Your task to perform on an android device: turn off notifications settings in the gmail app Image 0: 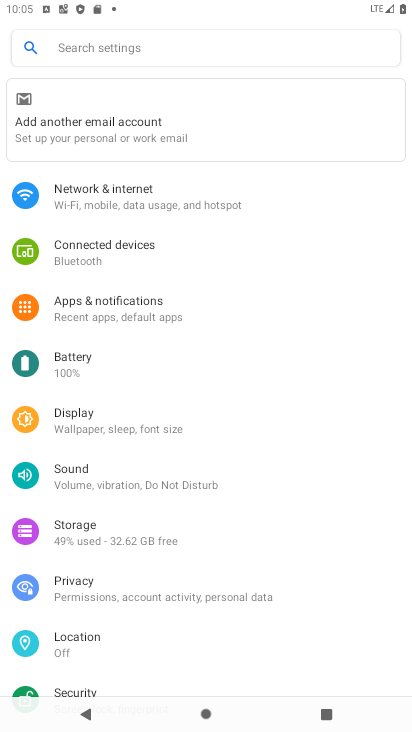
Step 0: press home button
Your task to perform on an android device: turn off notifications settings in the gmail app Image 1: 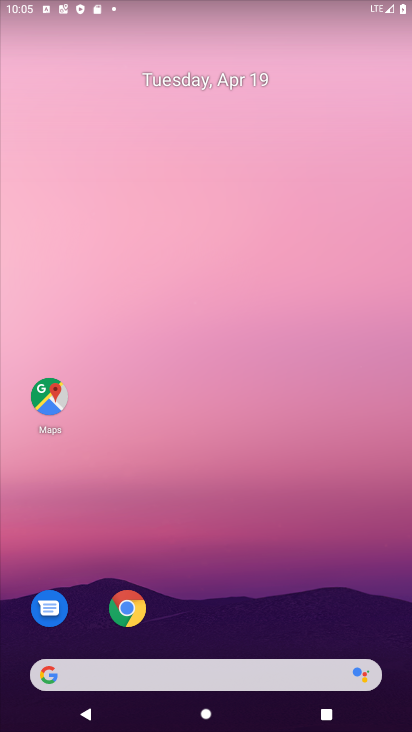
Step 1: drag from (356, 629) to (273, 170)
Your task to perform on an android device: turn off notifications settings in the gmail app Image 2: 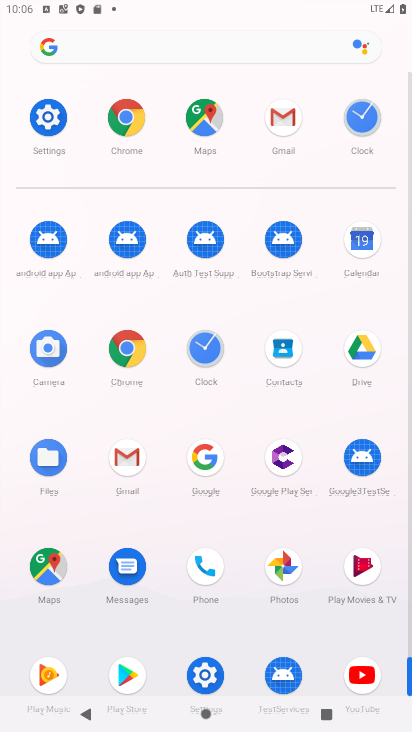
Step 2: click (121, 459)
Your task to perform on an android device: turn off notifications settings in the gmail app Image 3: 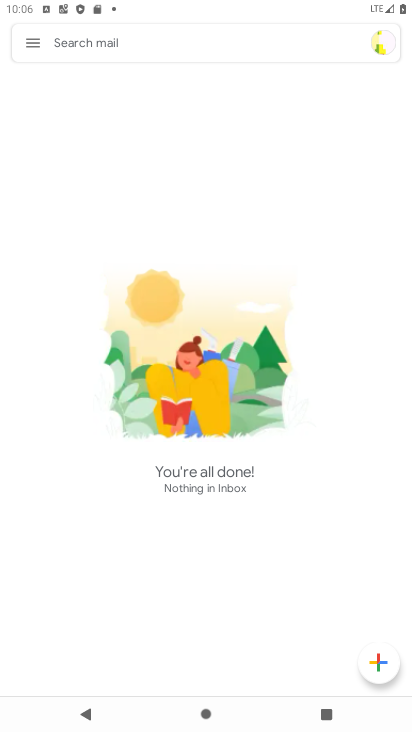
Step 3: click (31, 43)
Your task to perform on an android device: turn off notifications settings in the gmail app Image 4: 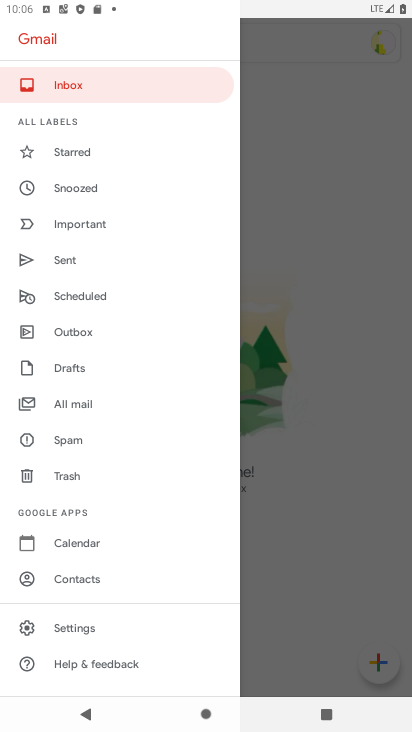
Step 4: click (75, 630)
Your task to perform on an android device: turn off notifications settings in the gmail app Image 5: 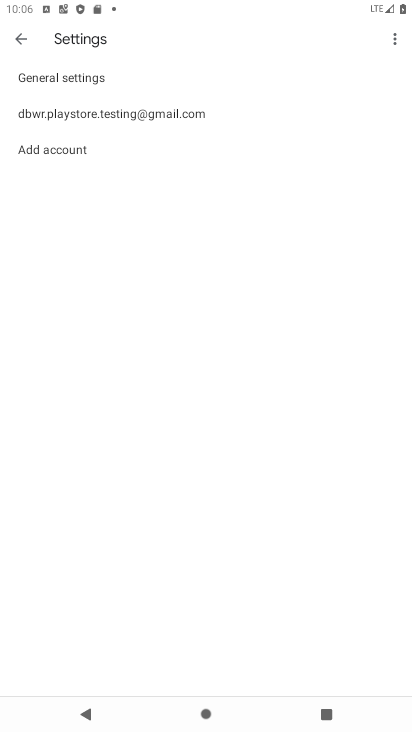
Step 5: click (108, 117)
Your task to perform on an android device: turn off notifications settings in the gmail app Image 6: 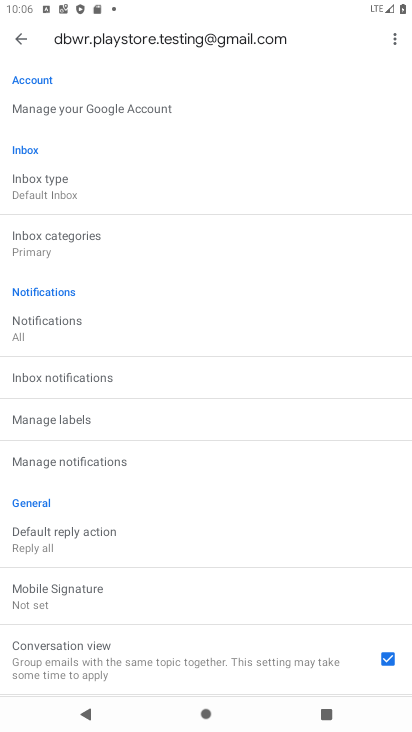
Step 6: click (78, 459)
Your task to perform on an android device: turn off notifications settings in the gmail app Image 7: 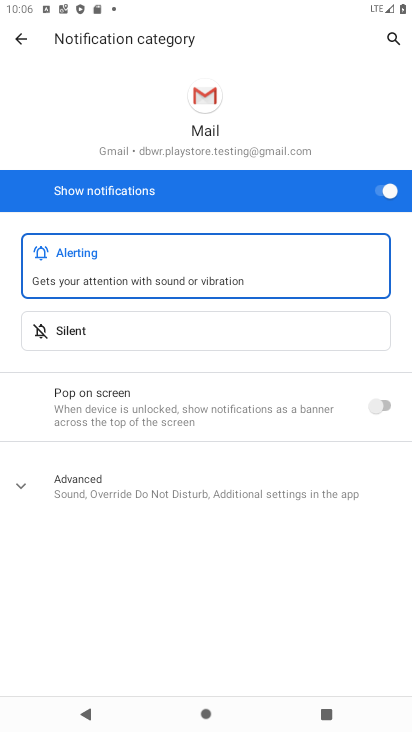
Step 7: click (376, 189)
Your task to perform on an android device: turn off notifications settings in the gmail app Image 8: 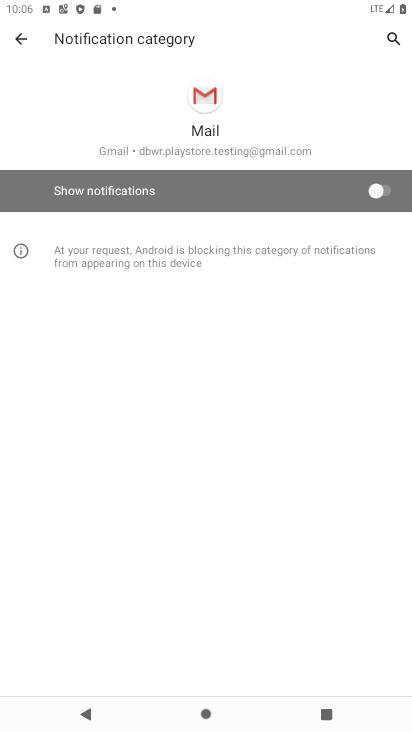
Step 8: task complete